Your task to perform on an android device: Go to network settings Image 0: 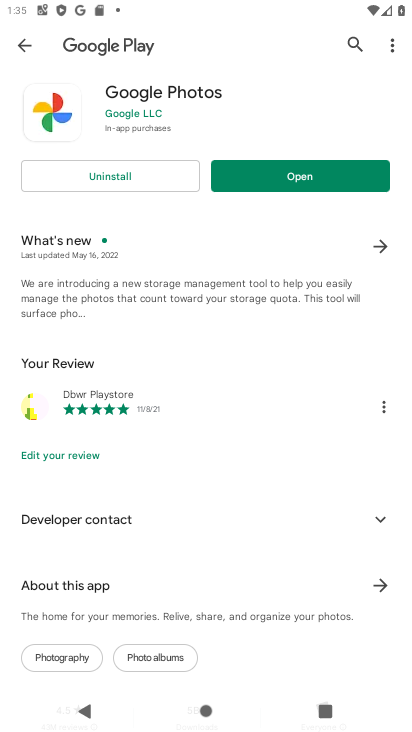
Step 0: drag from (249, 513) to (261, 209)
Your task to perform on an android device: Go to network settings Image 1: 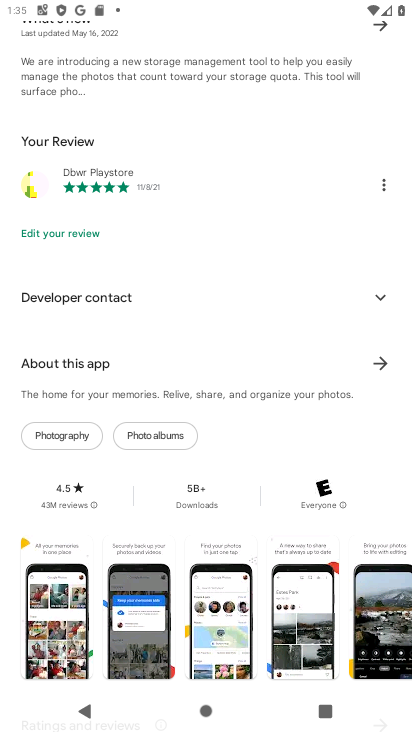
Step 1: press home button
Your task to perform on an android device: Go to network settings Image 2: 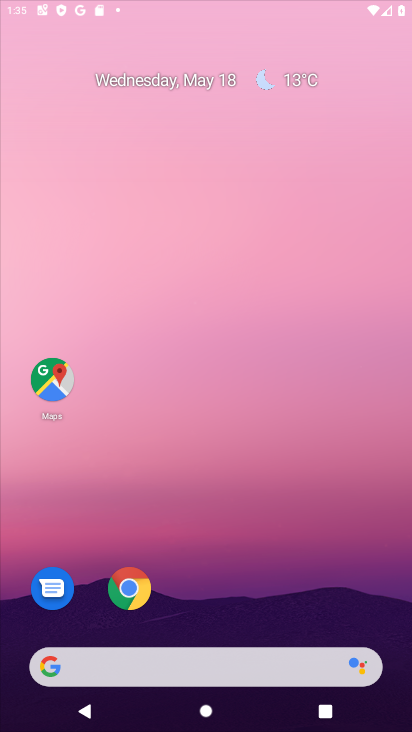
Step 2: drag from (237, 639) to (241, 158)
Your task to perform on an android device: Go to network settings Image 3: 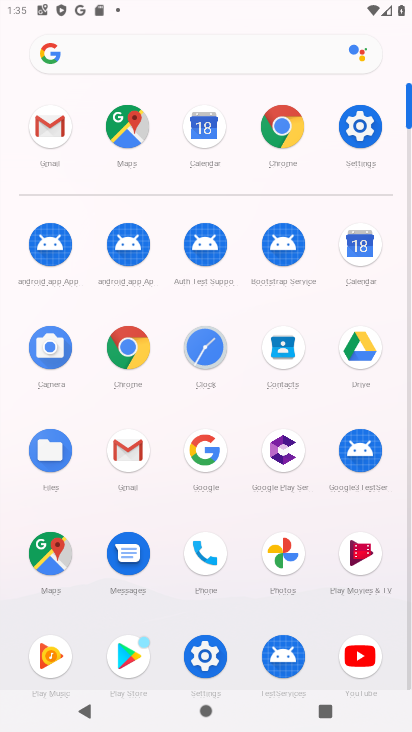
Step 3: click (357, 133)
Your task to perform on an android device: Go to network settings Image 4: 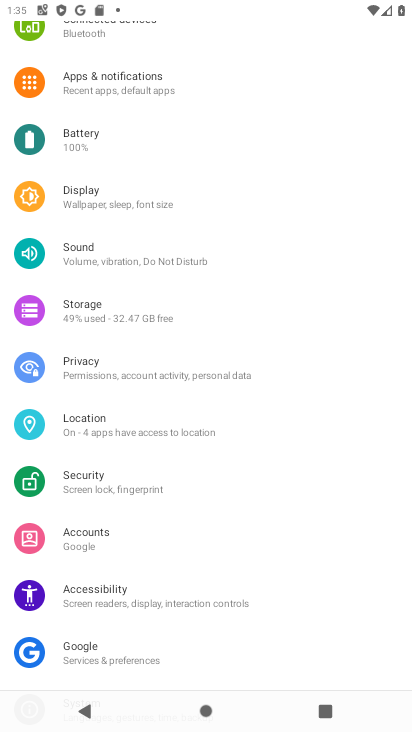
Step 4: drag from (139, 134) to (303, 525)
Your task to perform on an android device: Go to network settings Image 5: 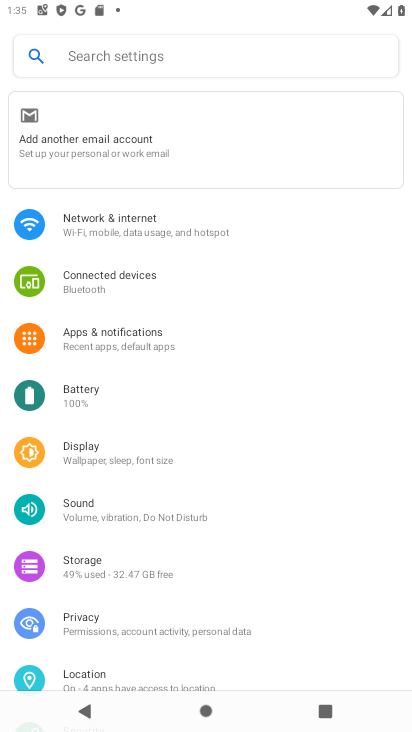
Step 5: click (155, 230)
Your task to perform on an android device: Go to network settings Image 6: 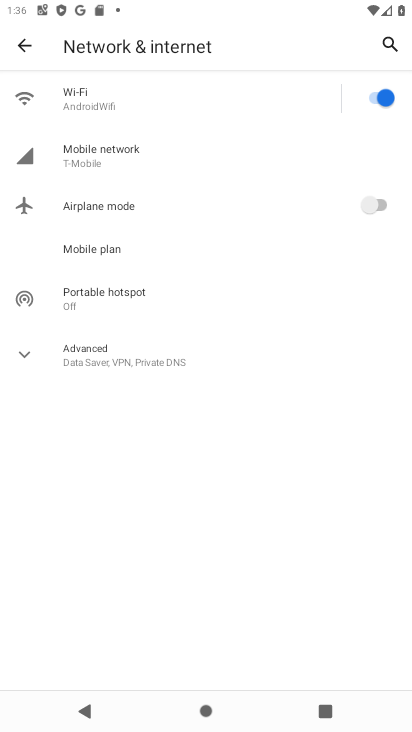
Step 6: click (133, 150)
Your task to perform on an android device: Go to network settings Image 7: 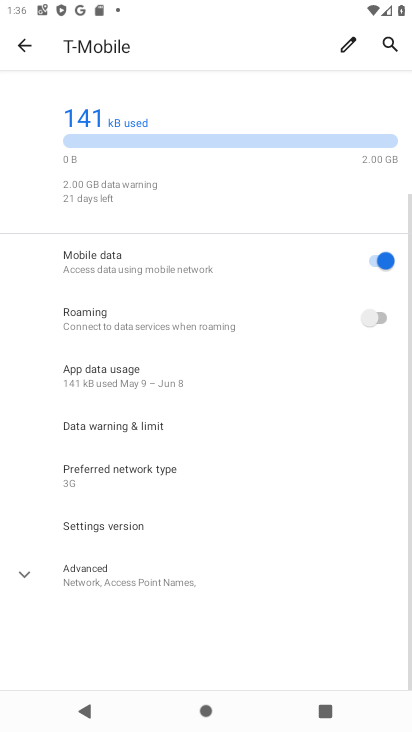
Step 7: task complete